Your task to perform on an android device: Search for Italian restaurants on Maps Image 0: 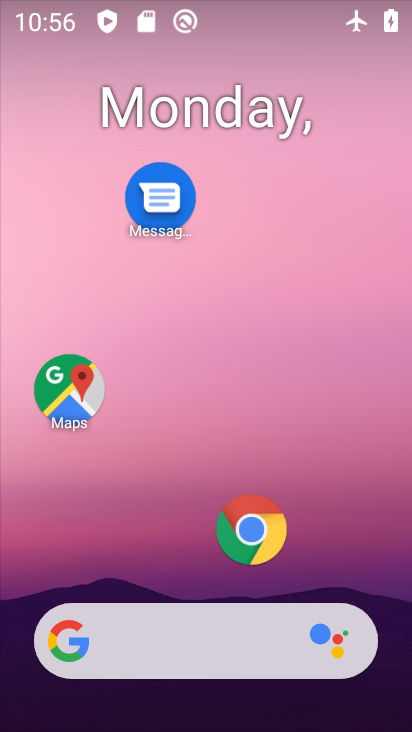
Step 0: drag from (180, 449) to (323, 72)
Your task to perform on an android device: Search for Italian restaurants on Maps Image 1: 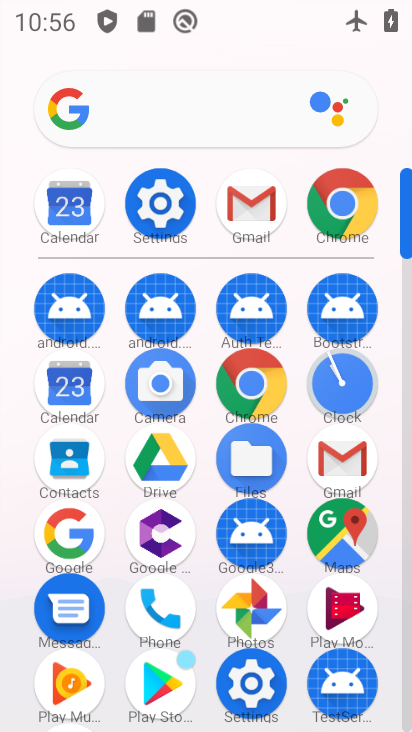
Step 1: click (345, 545)
Your task to perform on an android device: Search for Italian restaurants on Maps Image 2: 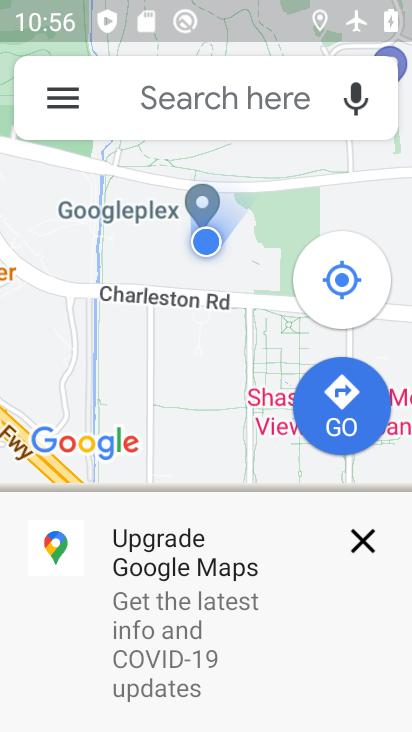
Step 2: click (238, 95)
Your task to perform on an android device: Search for Italian restaurants on Maps Image 3: 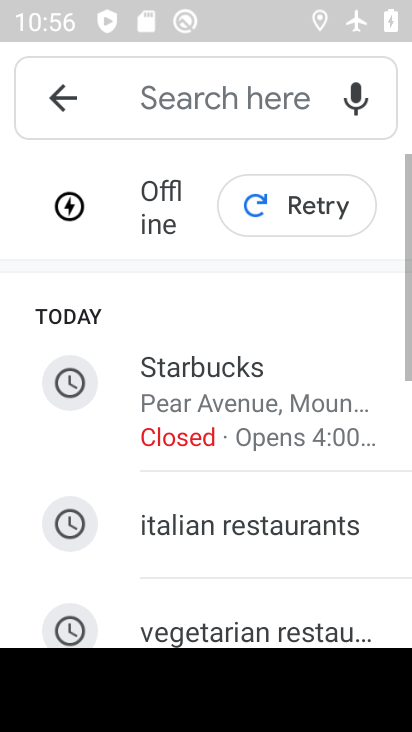
Step 3: click (253, 536)
Your task to perform on an android device: Search for Italian restaurants on Maps Image 4: 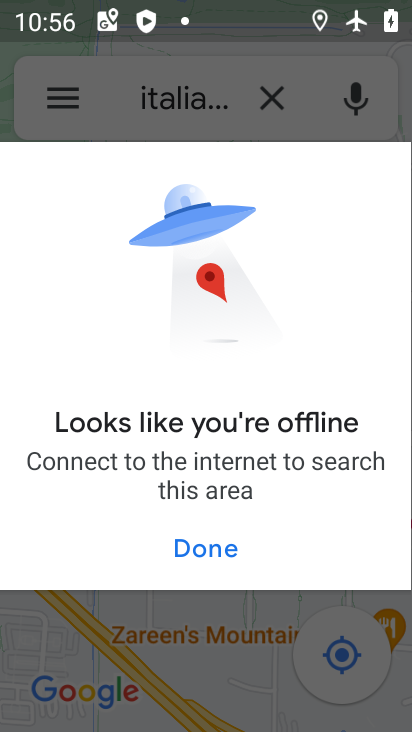
Step 4: click (165, 566)
Your task to perform on an android device: Search for Italian restaurants on Maps Image 5: 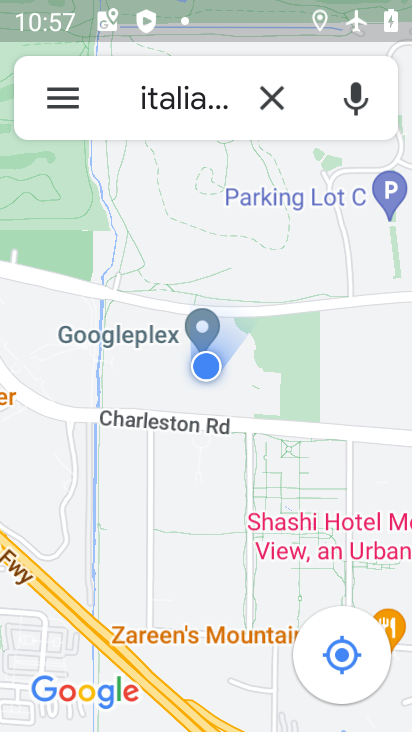
Step 5: task complete